Your task to perform on an android device: delete location history Image 0: 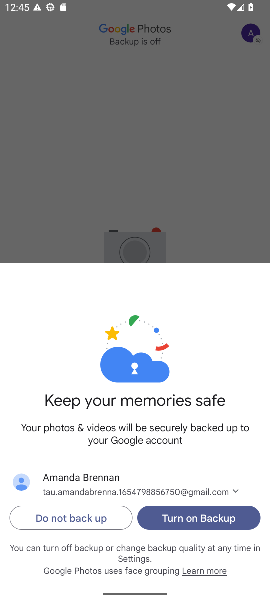
Step 0: press home button
Your task to perform on an android device: delete location history Image 1: 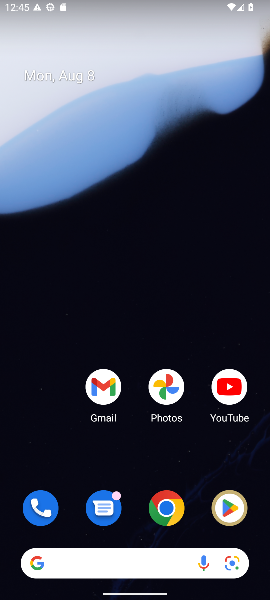
Step 1: drag from (129, 507) to (137, 4)
Your task to perform on an android device: delete location history Image 2: 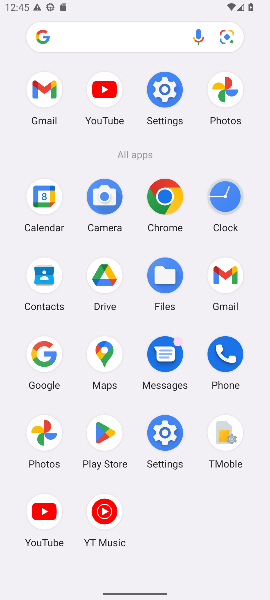
Step 2: click (164, 427)
Your task to perform on an android device: delete location history Image 3: 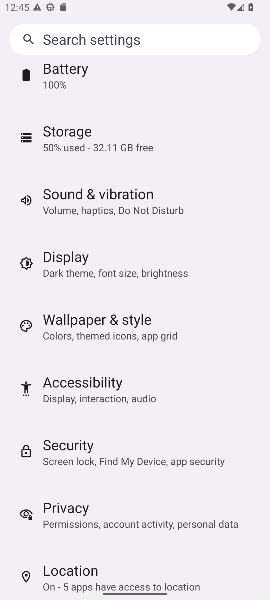
Step 3: click (70, 567)
Your task to perform on an android device: delete location history Image 4: 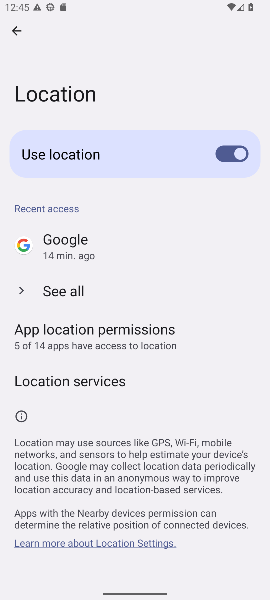
Step 4: click (100, 380)
Your task to perform on an android device: delete location history Image 5: 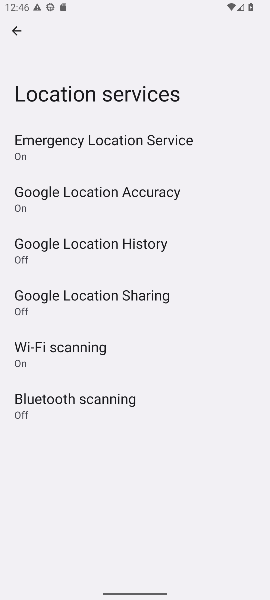
Step 5: click (115, 246)
Your task to perform on an android device: delete location history Image 6: 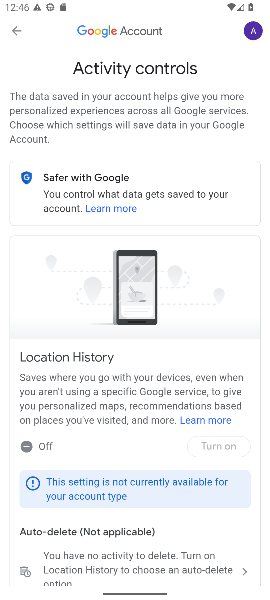
Step 6: drag from (164, 498) to (190, 231)
Your task to perform on an android device: delete location history Image 7: 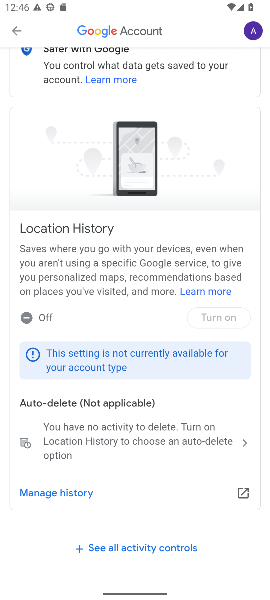
Step 7: click (65, 489)
Your task to perform on an android device: delete location history Image 8: 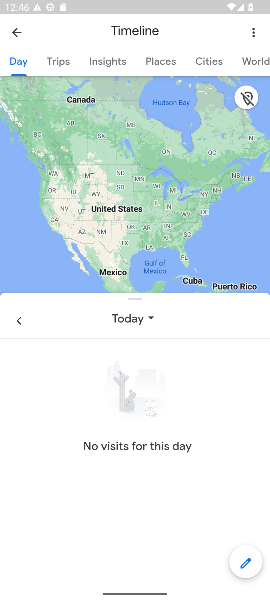
Step 8: click (255, 34)
Your task to perform on an android device: delete location history Image 9: 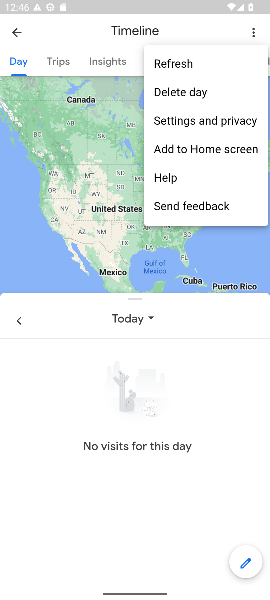
Step 9: click (215, 120)
Your task to perform on an android device: delete location history Image 10: 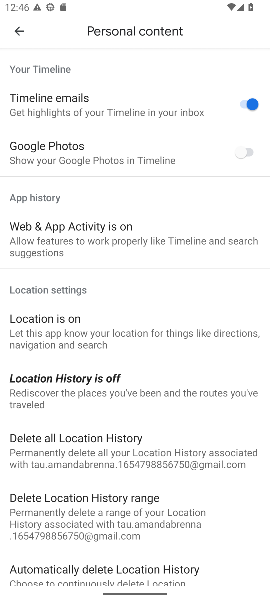
Step 10: click (105, 452)
Your task to perform on an android device: delete location history Image 11: 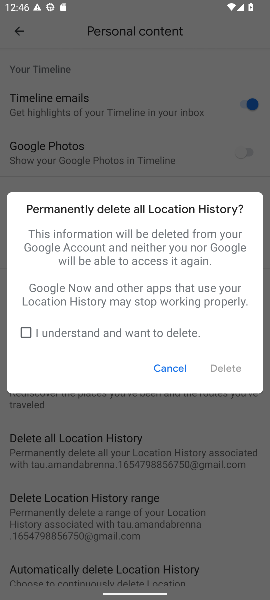
Step 11: click (23, 333)
Your task to perform on an android device: delete location history Image 12: 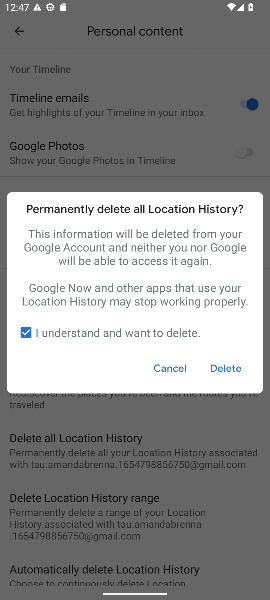
Step 12: click (215, 365)
Your task to perform on an android device: delete location history Image 13: 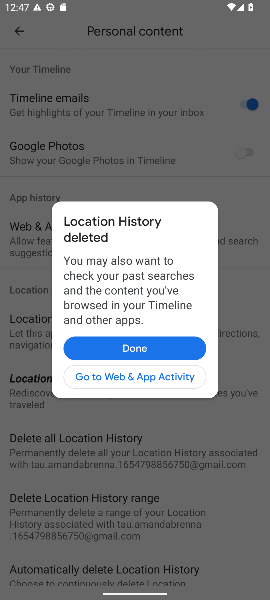
Step 13: click (125, 351)
Your task to perform on an android device: delete location history Image 14: 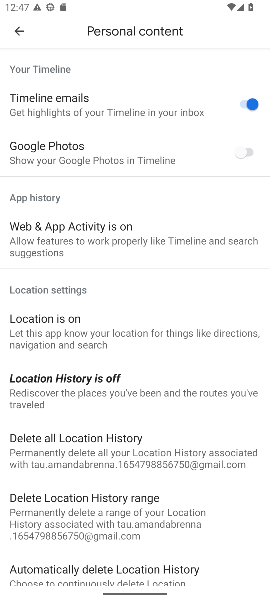
Step 14: task complete